Your task to perform on an android device: toggle improve location accuracy Image 0: 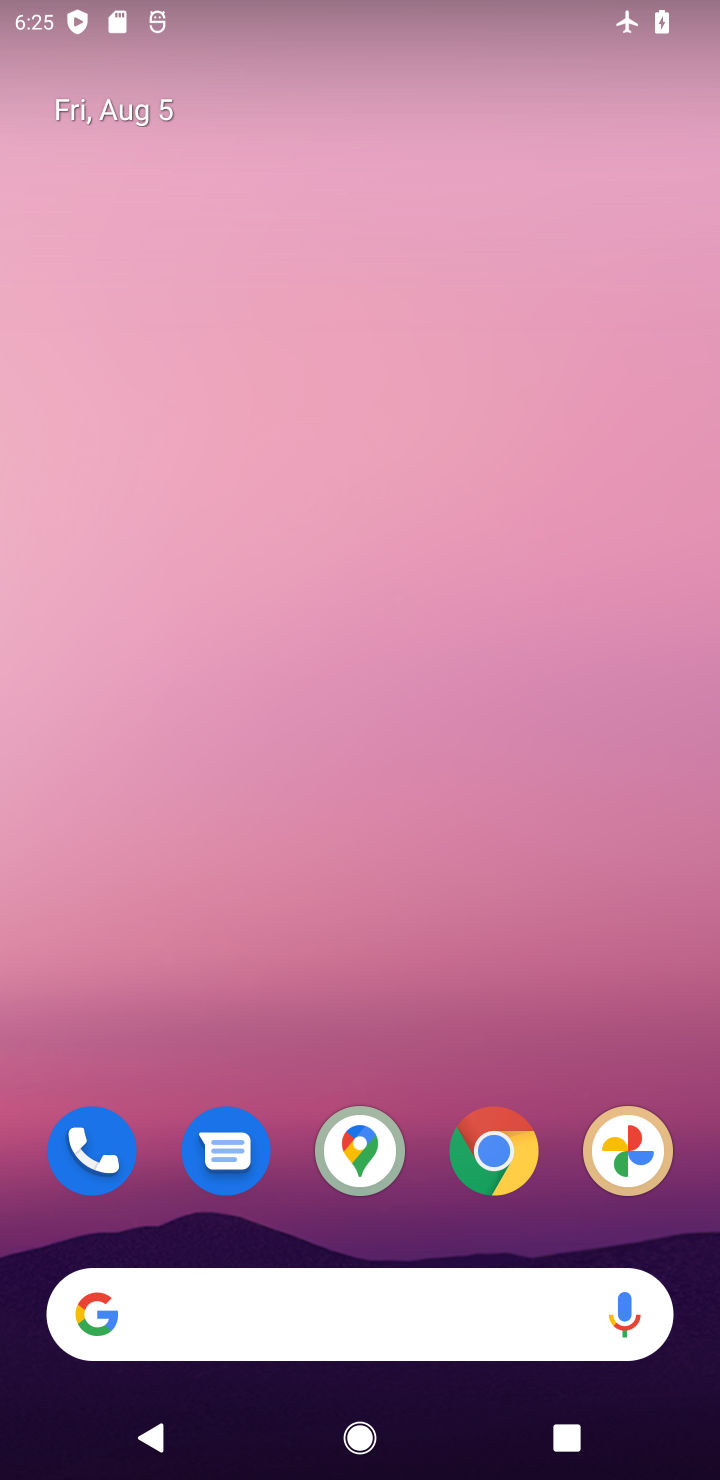
Step 0: drag from (426, 1229) to (347, 35)
Your task to perform on an android device: toggle improve location accuracy Image 1: 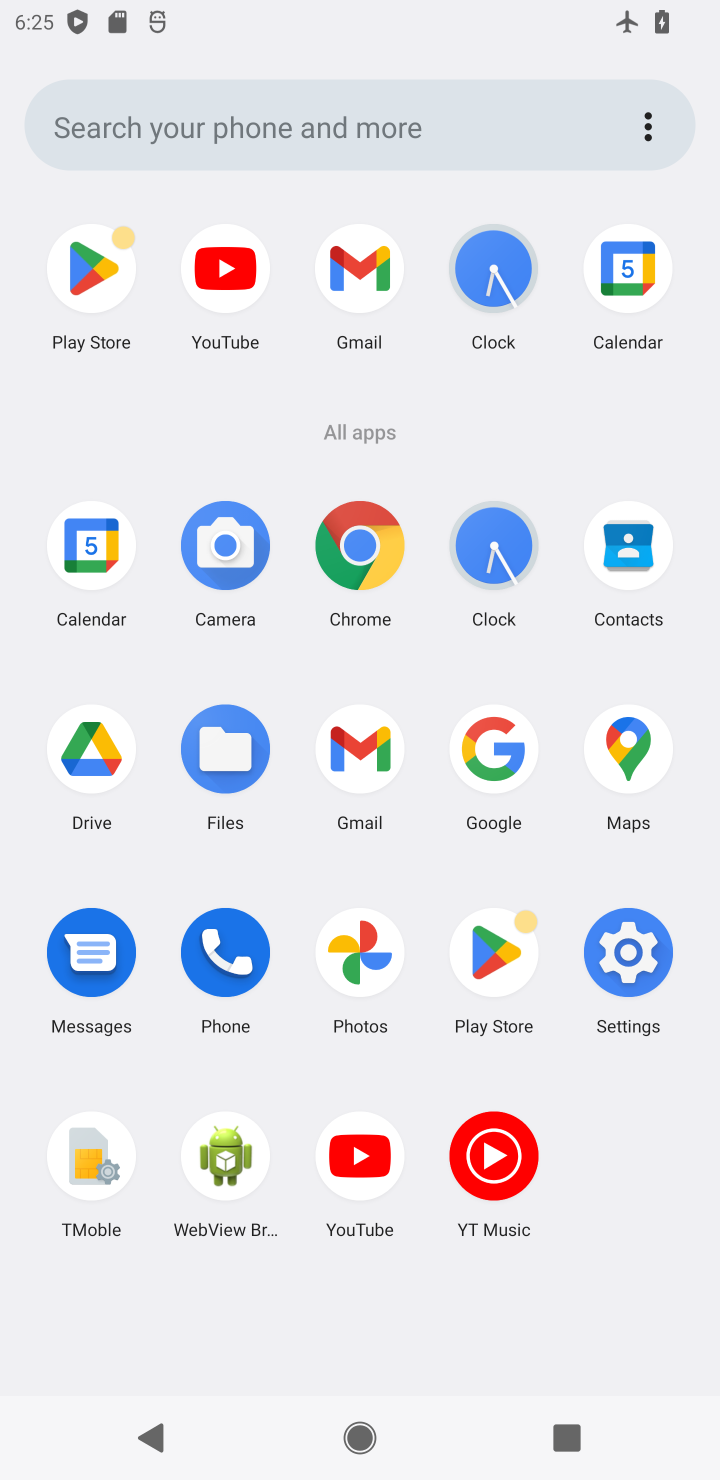
Step 1: click (652, 928)
Your task to perform on an android device: toggle improve location accuracy Image 2: 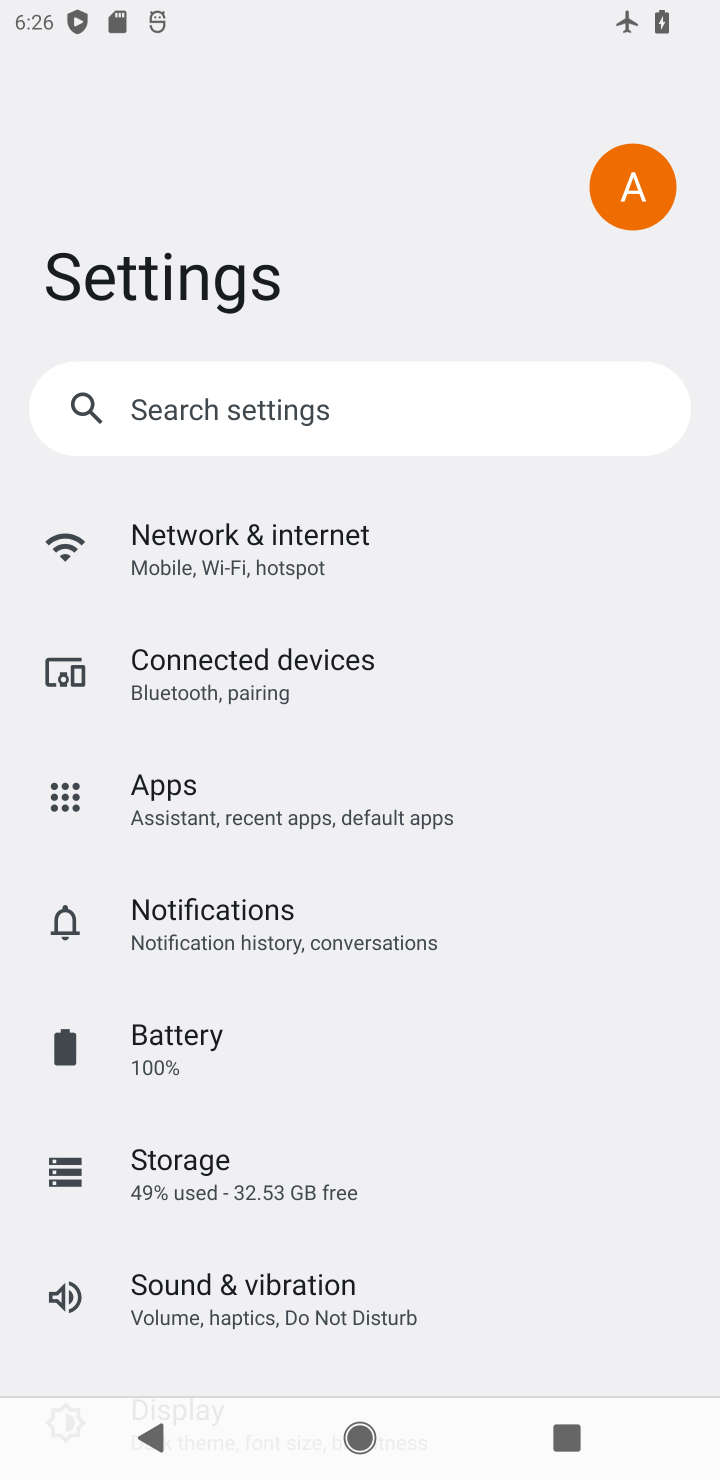
Step 2: drag from (296, 1189) to (238, 597)
Your task to perform on an android device: toggle improve location accuracy Image 3: 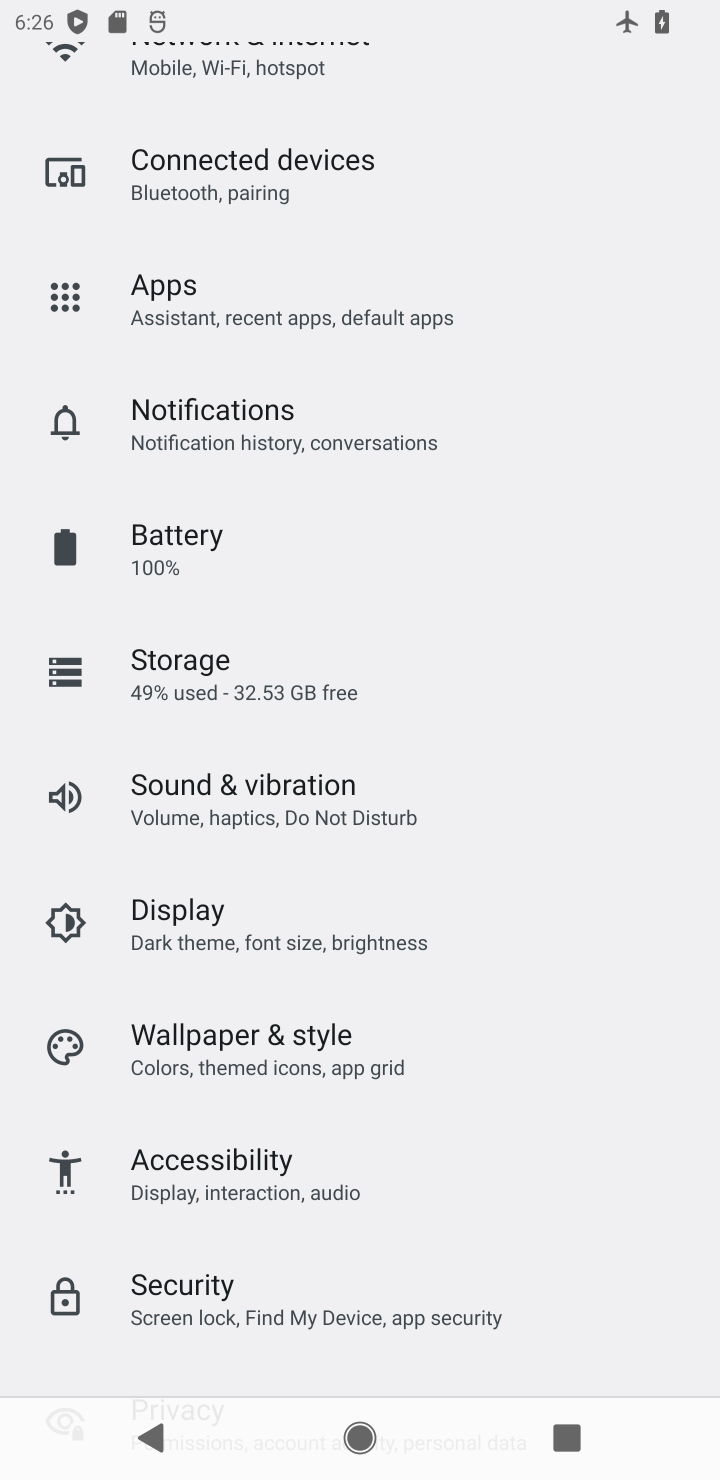
Step 3: drag from (277, 1168) to (283, 580)
Your task to perform on an android device: toggle improve location accuracy Image 4: 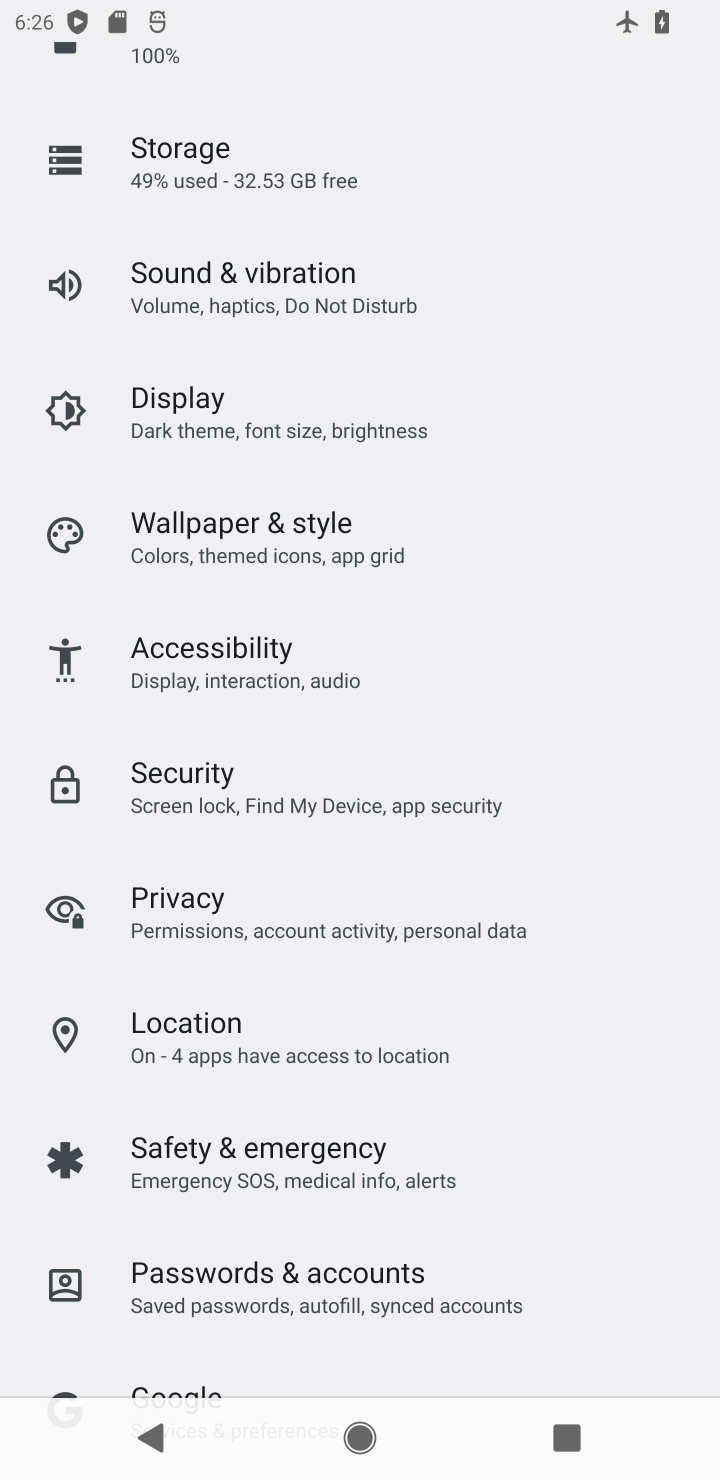
Step 4: click (235, 1019)
Your task to perform on an android device: toggle improve location accuracy Image 5: 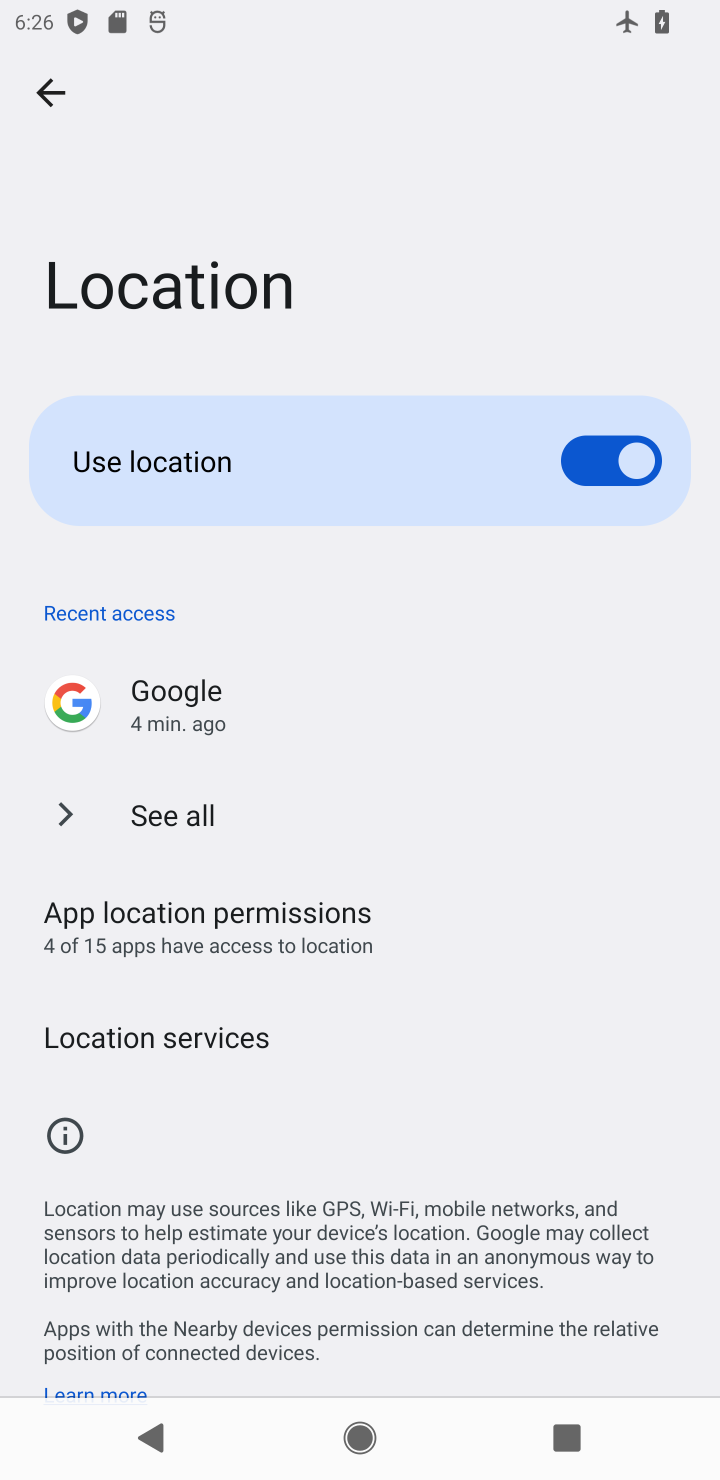
Step 5: click (244, 1028)
Your task to perform on an android device: toggle improve location accuracy Image 6: 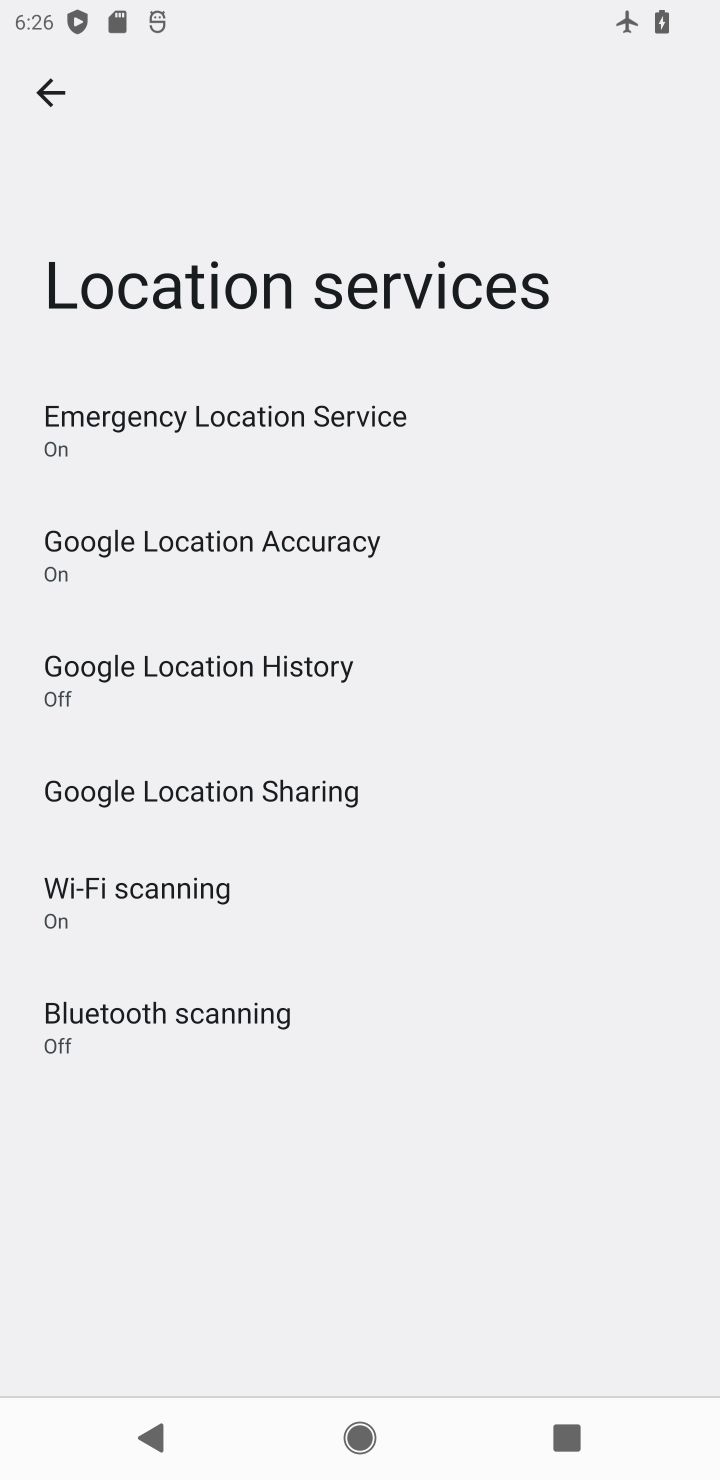
Step 6: click (268, 573)
Your task to perform on an android device: toggle improve location accuracy Image 7: 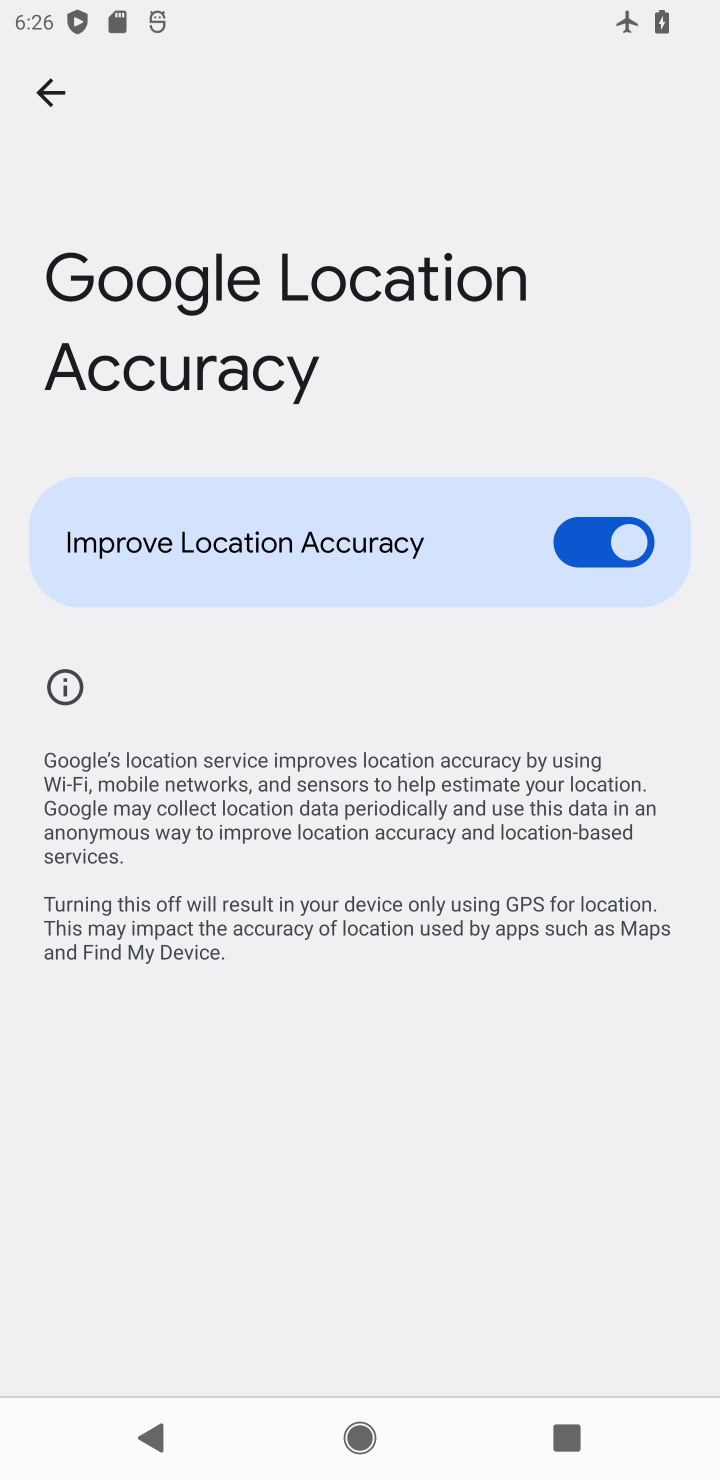
Step 7: click (537, 531)
Your task to perform on an android device: toggle improve location accuracy Image 8: 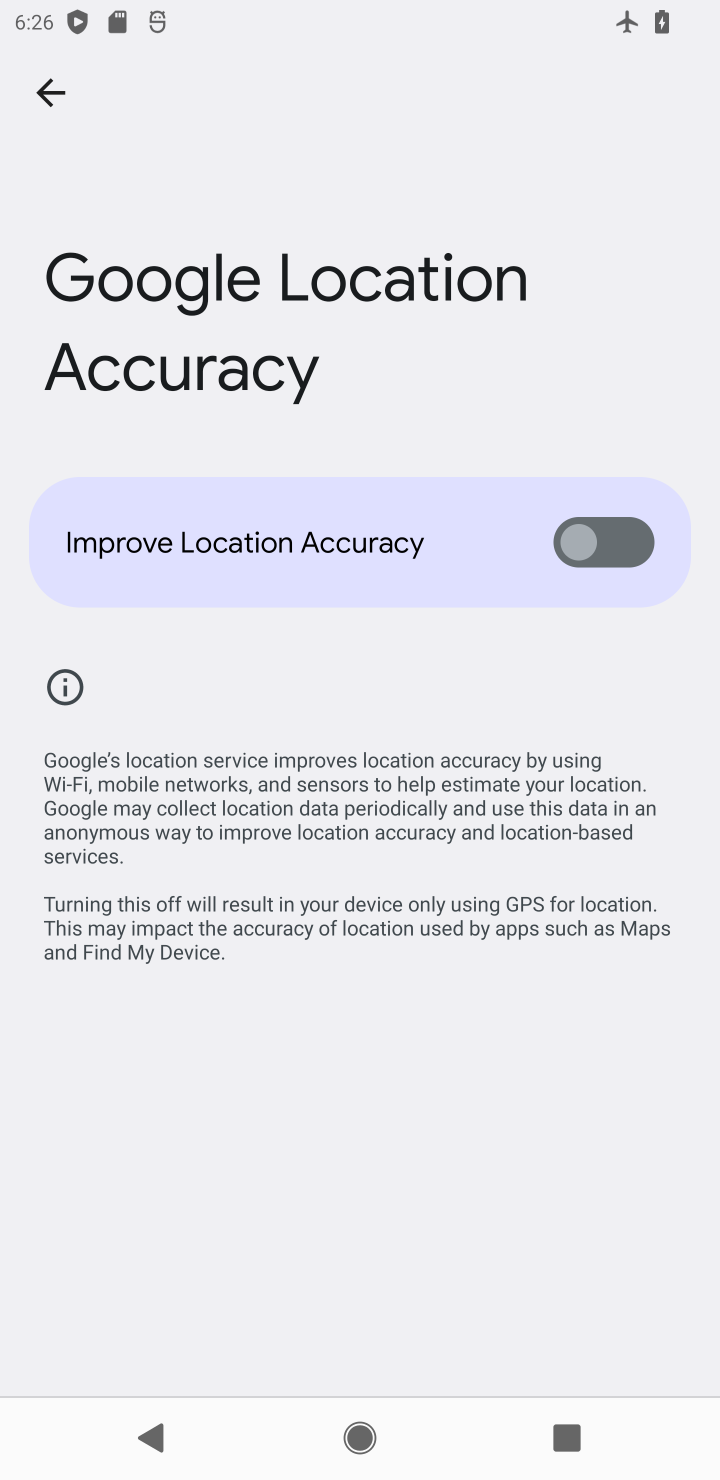
Step 8: task complete